Your task to perform on an android device: Empty the shopping cart on target. Search for "bose soundlink" on target, select the first entry, add it to the cart, then select checkout. Image 0: 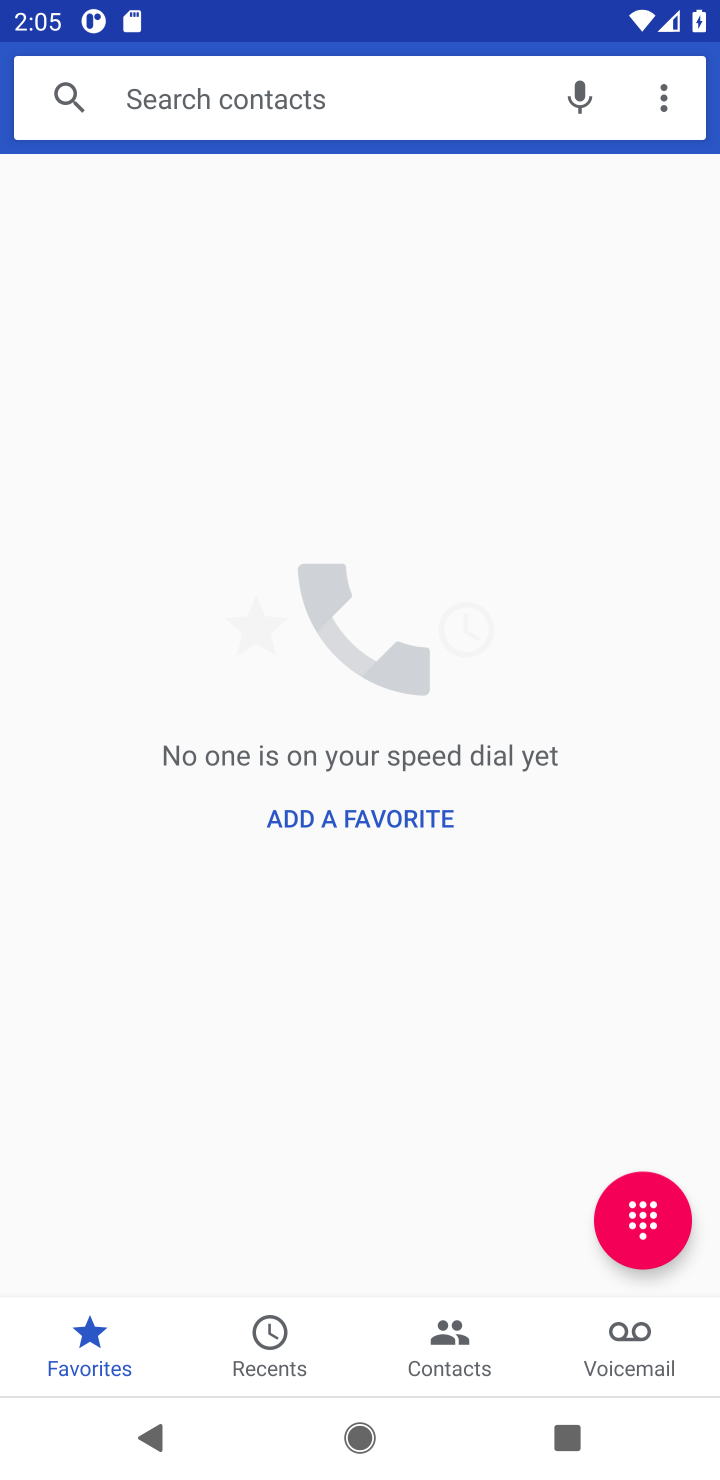
Step 0: press home button
Your task to perform on an android device: Empty the shopping cart on target. Search for "bose soundlink" on target, select the first entry, add it to the cart, then select checkout. Image 1: 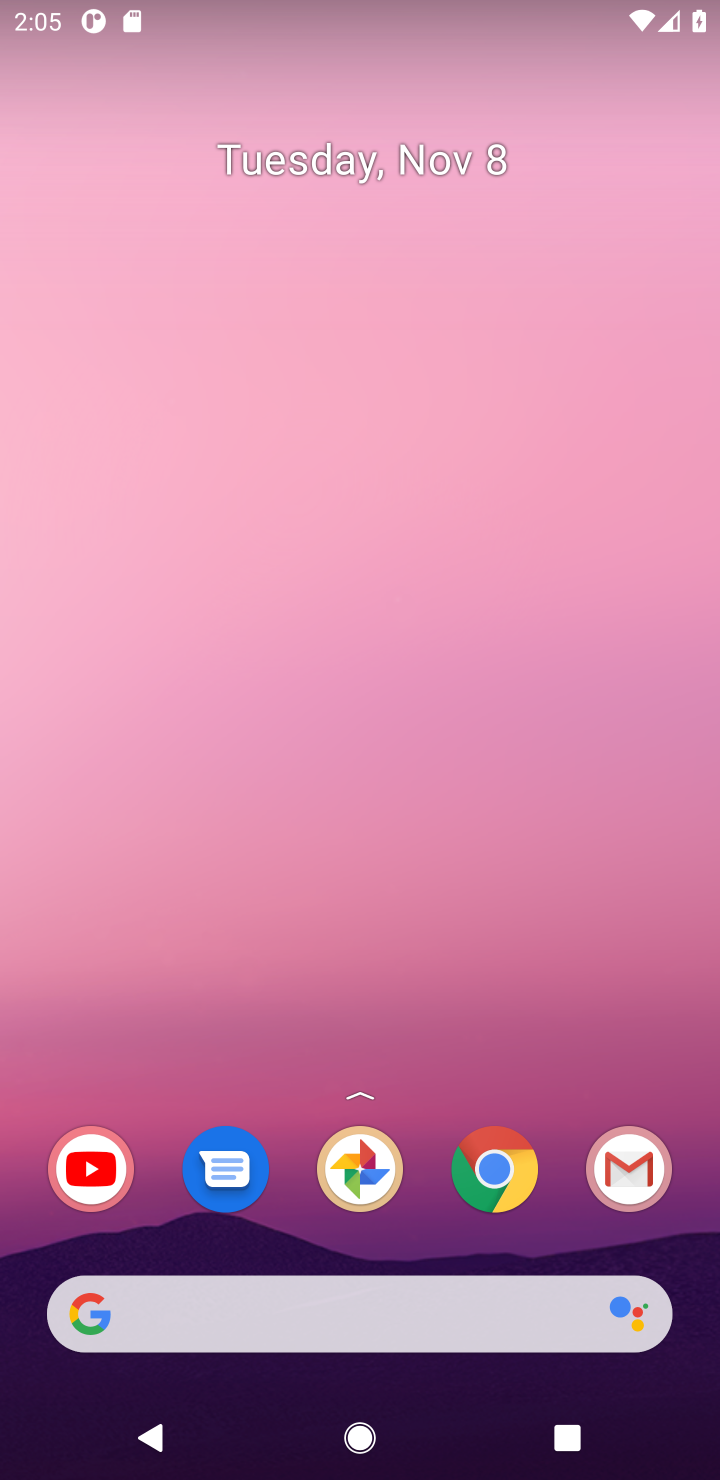
Step 1: click (497, 1164)
Your task to perform on an android device: Empty the shopping cart on target. Search for "bose soundlink" on target, select the first entry, add it to the cart, then select checkout. Image 2: 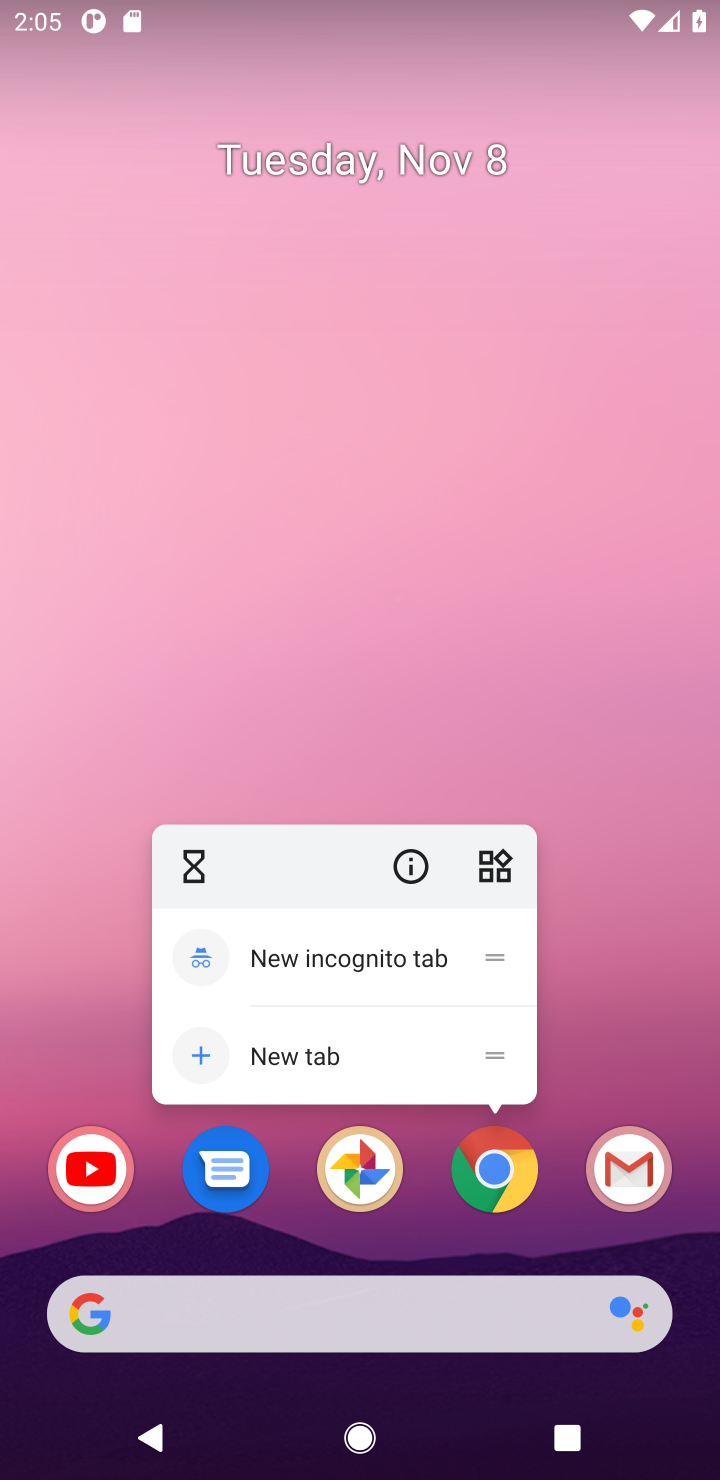
Step 2: click (493, 1207)
Your task to perform on an android device: Empty the shopping cart on target. Search for "bose soundlink" on target, select the first entry, add it to the cart, then select checkout. Image 3: 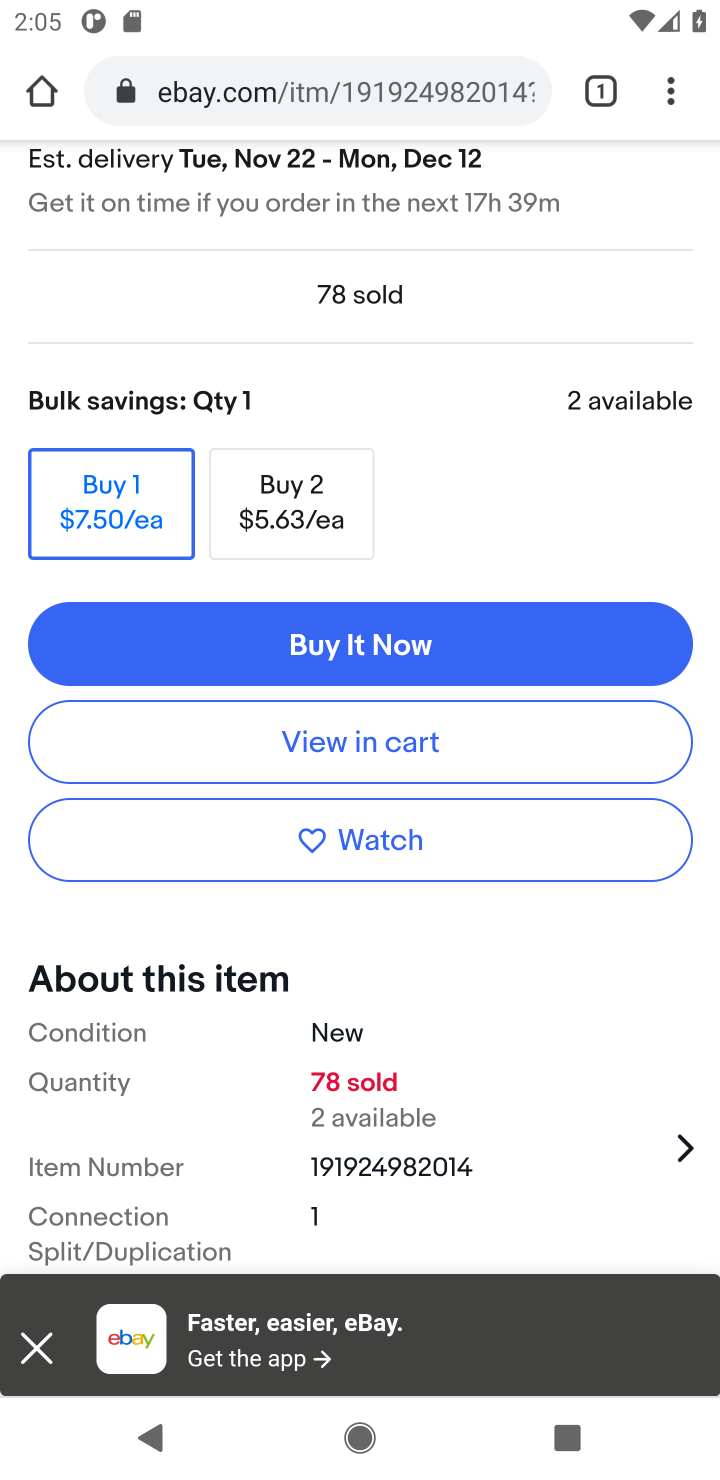
Step 3: click (391, 75)
Your task to perform on an android device: Empty the shopping cart on target. Search for "bose soundlink" on target, select the first entry, add it to the cart, then select checkout. Image 4: 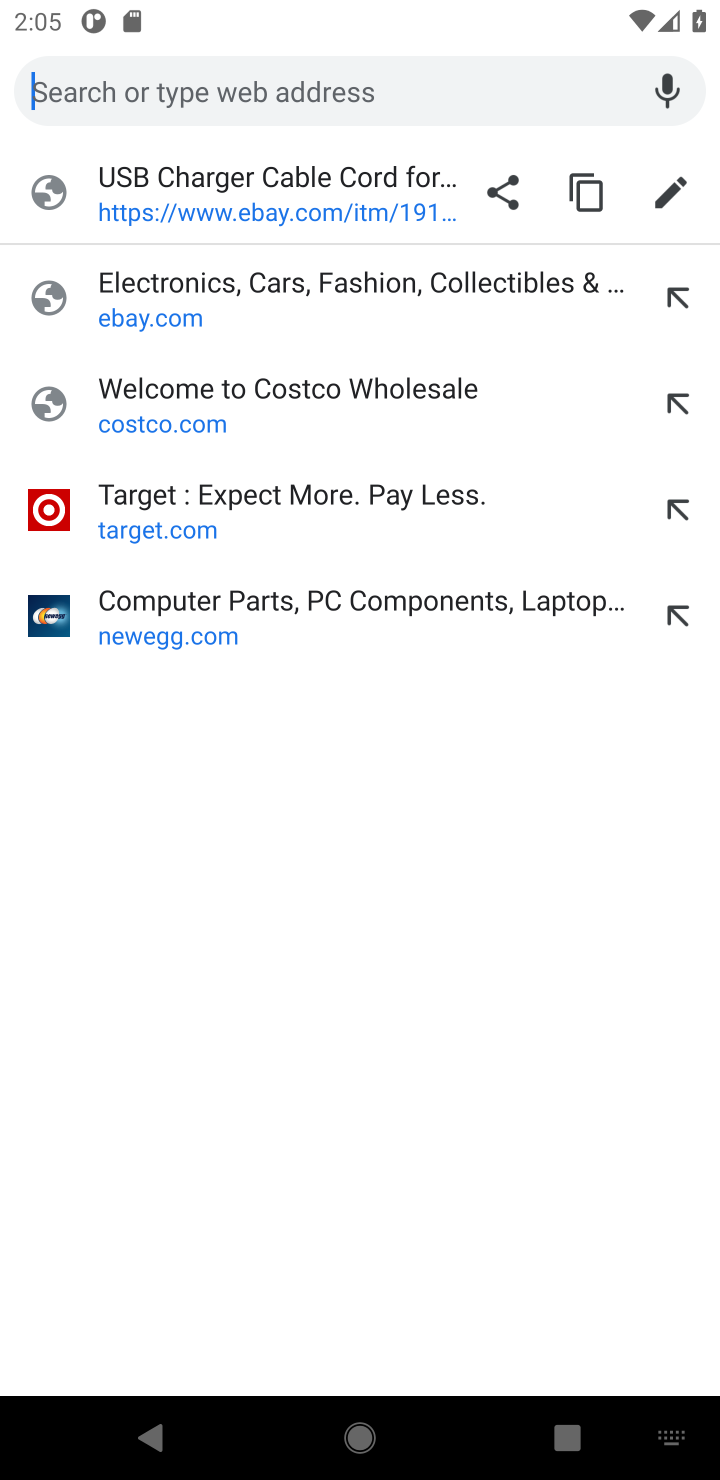
Step 4: type "target"
Your task to perform on an android device: Empty the shopping cart on target. Search for "bose soundlink" on target, select the first entry, add it to the cart, then select checkout. Image 5: 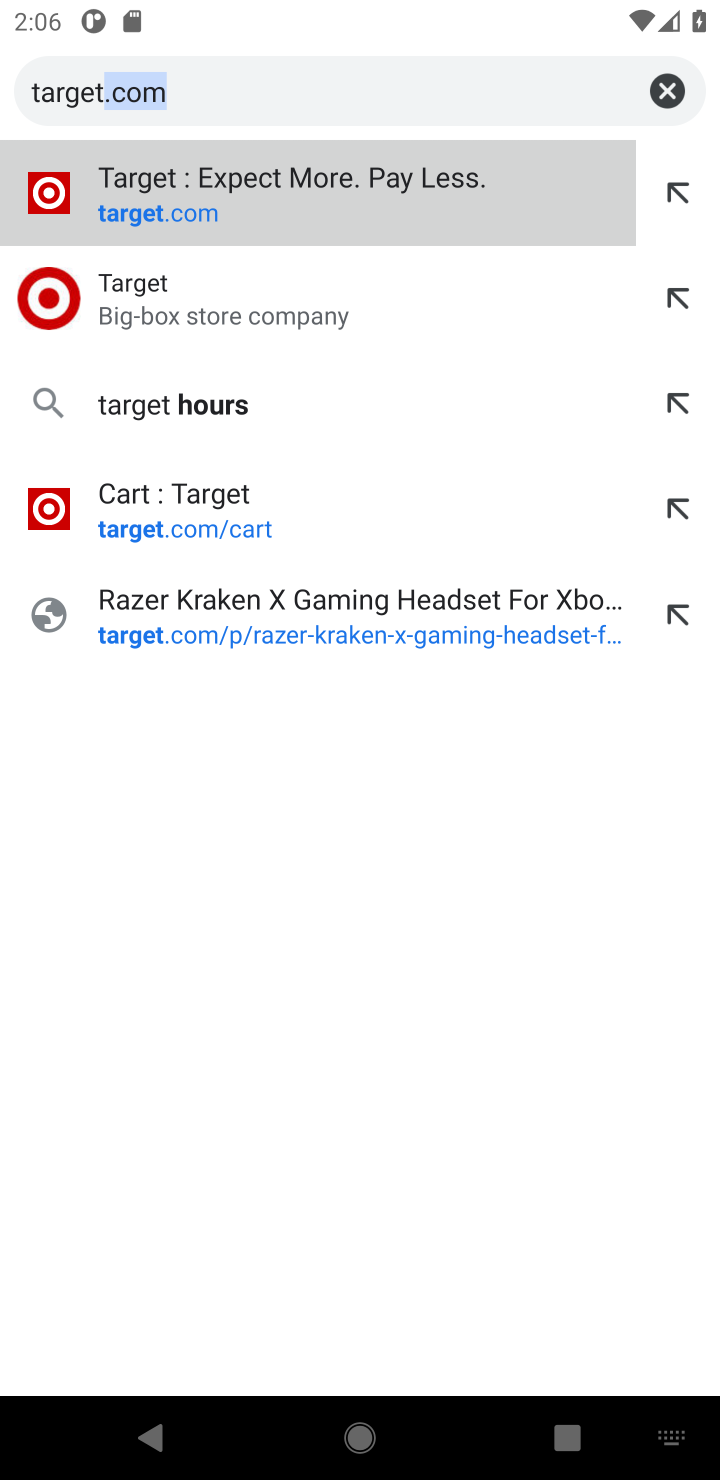
Step 5: click (311, 205)
Your task to perform on an android device: Empty the shopping cart on target. Search for "bose soundlink" on target, select the first entry, add it to the cart, then select checkout. Image 6: 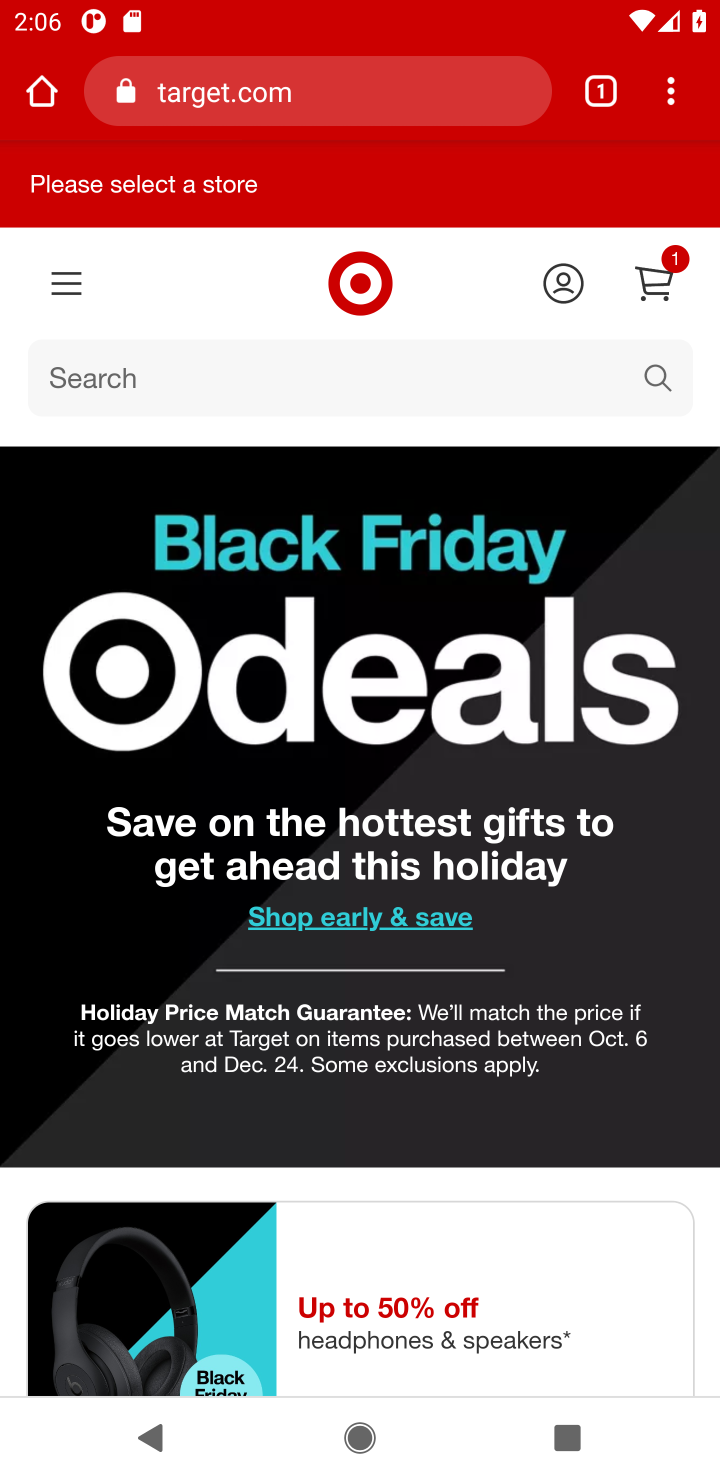
Step 6: click (656, 286)
Your task to perform on an android device: Empty the shopping cart on target. Search for "bose soundlink" on target, select the first entry, add it to the cart, then select checkout. Image 7: 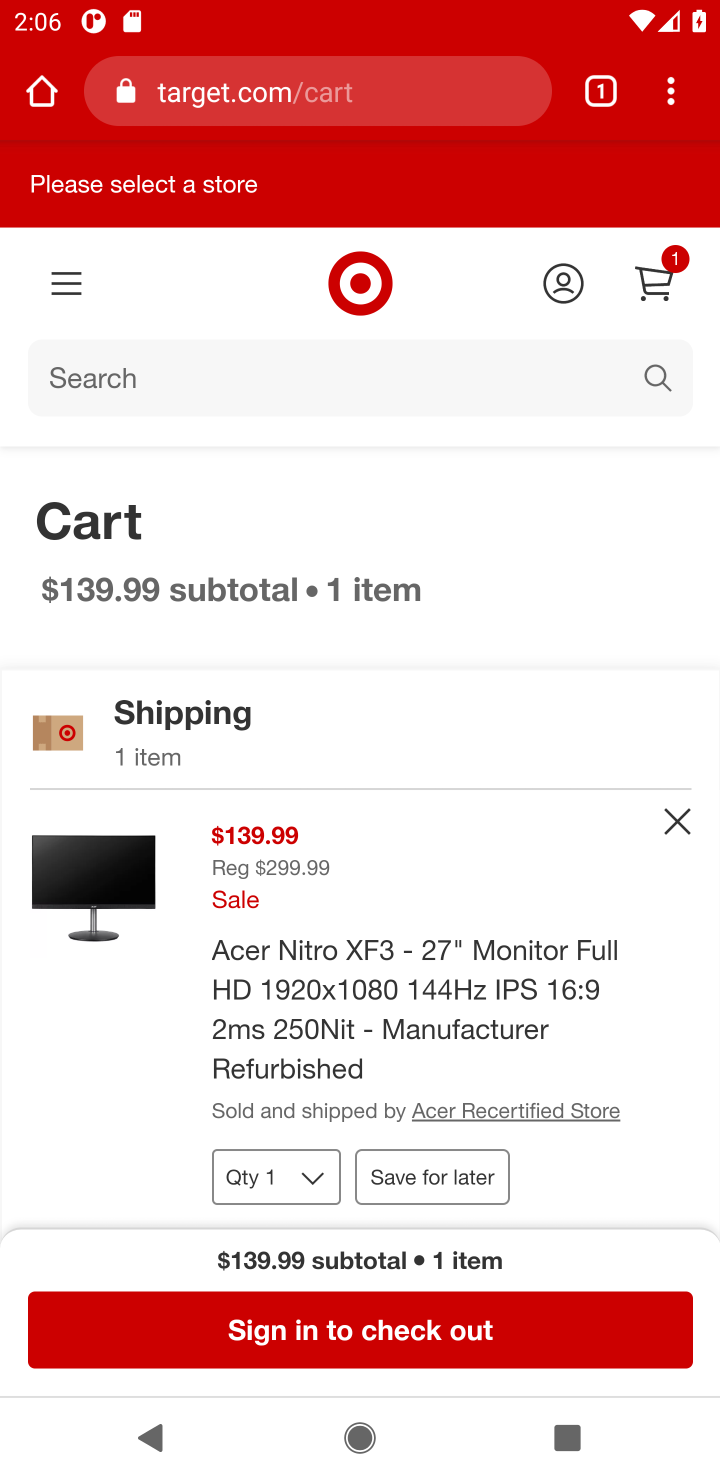
Step 7: drag from (563, 1186) to (478, 876)
Your task to perform on an android device: Empty the shopping cart on target. Search for "bose soundlink" on target, select the first entry, add it to the cart, then select checkout. Image 8: 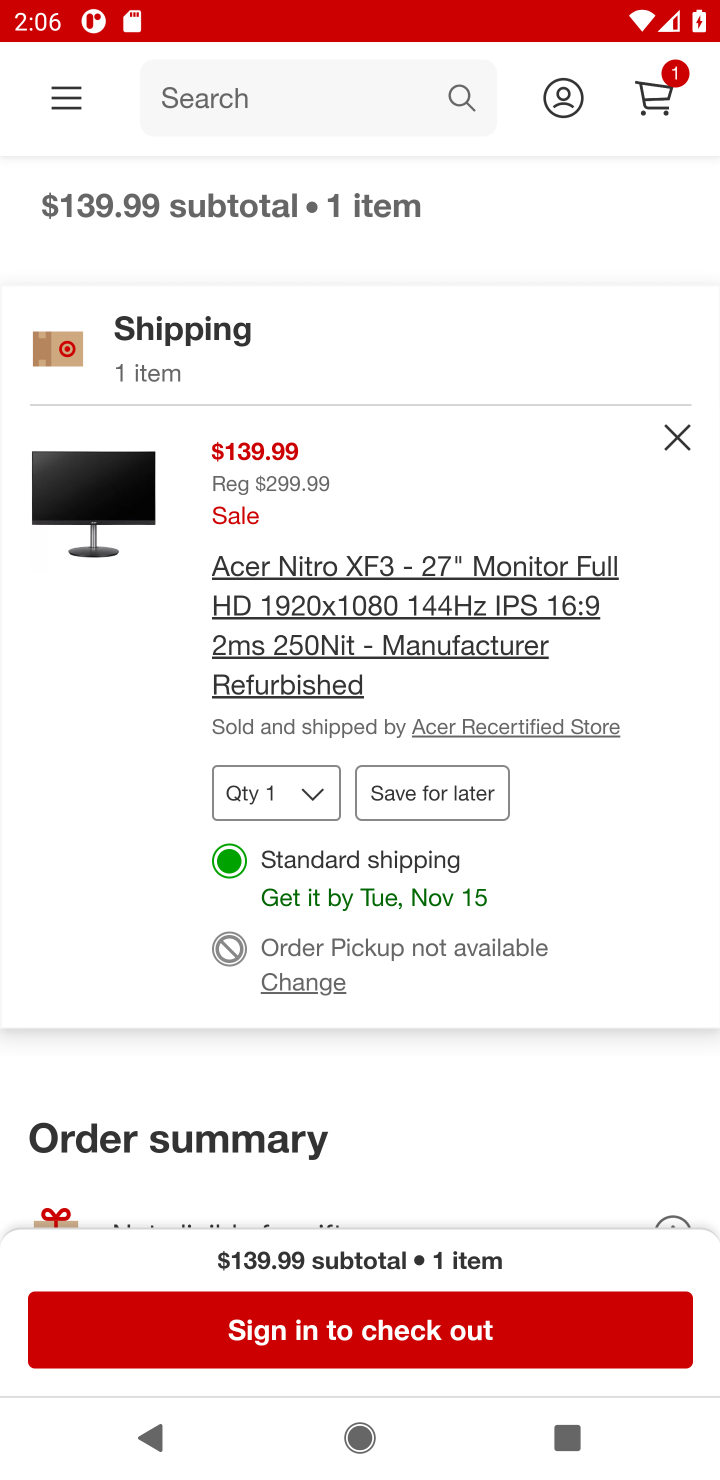
Step 8: click (673, 428)
Your task to perform on an android device: Empty the shopping cart on target. Search for "bose soundlink" on target, select the first entry, add it to the cart, then select checkout. Image 9: 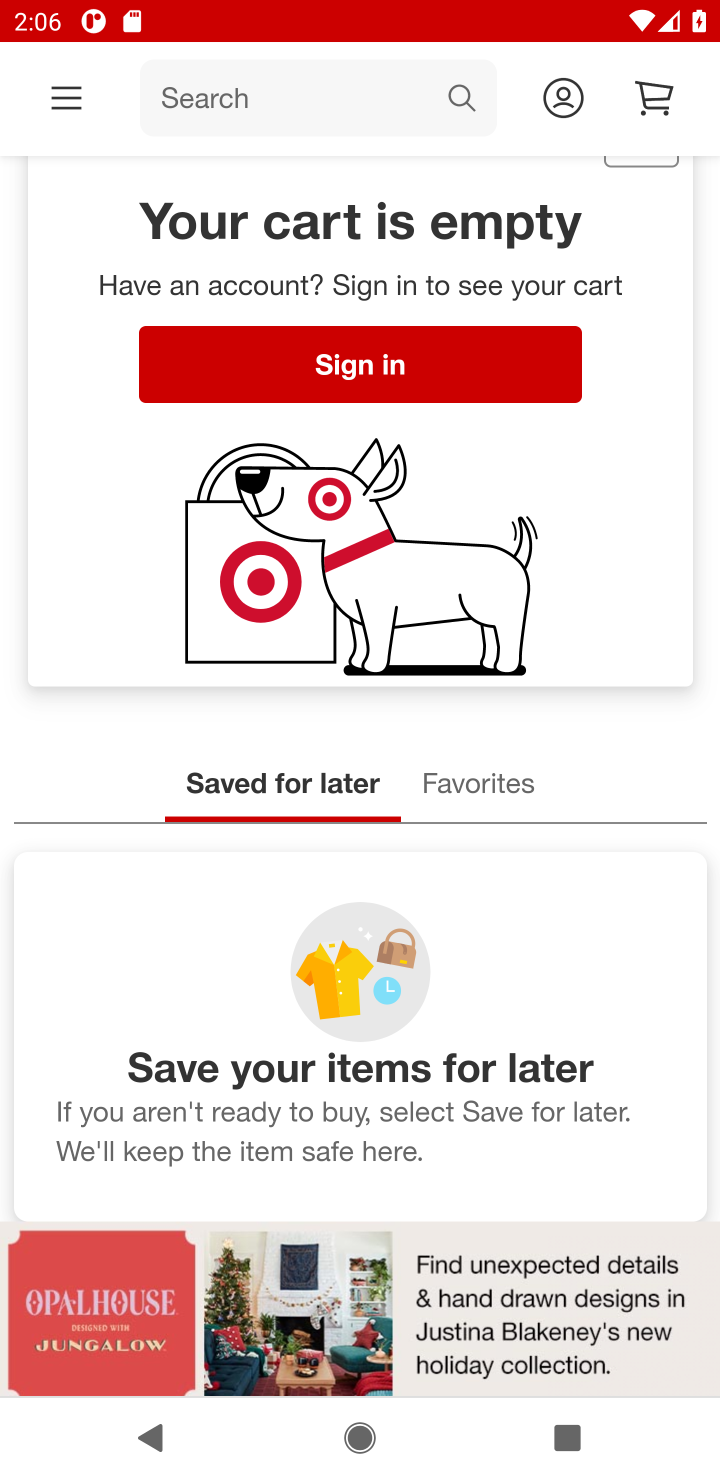
Step 9: drag from (320, 157) to (358, 406)
Your task to perform on an android device: Empty the shopping cart on target. Search for "bose soundlink" on target, select the first entry, add it to the cart, then select checkout. Image 10: 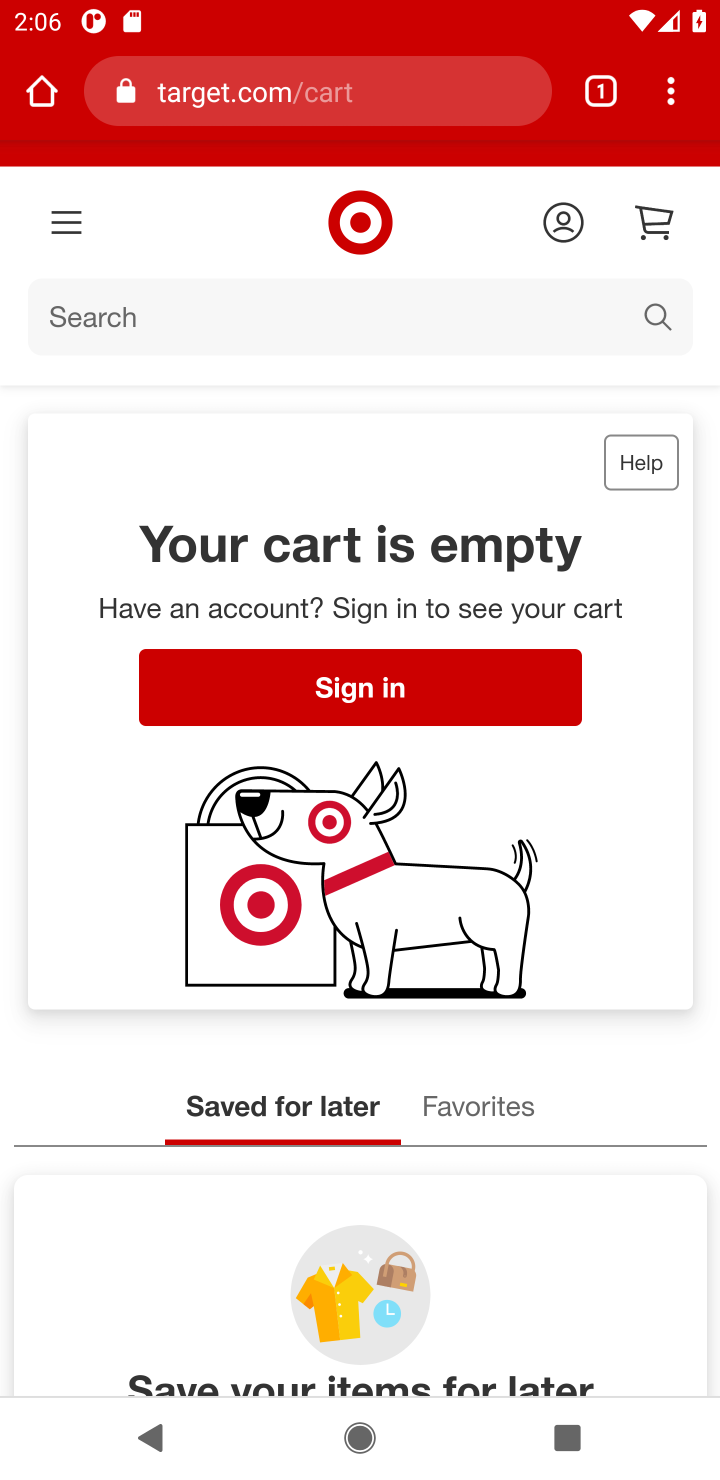
Step 10: click (305, 318)
Your task to perform on an android device: Empty the shopping cart on target. Search for "bose soundlink" on target, select the first entry, add it to the cart, then select checkout. Image 11: 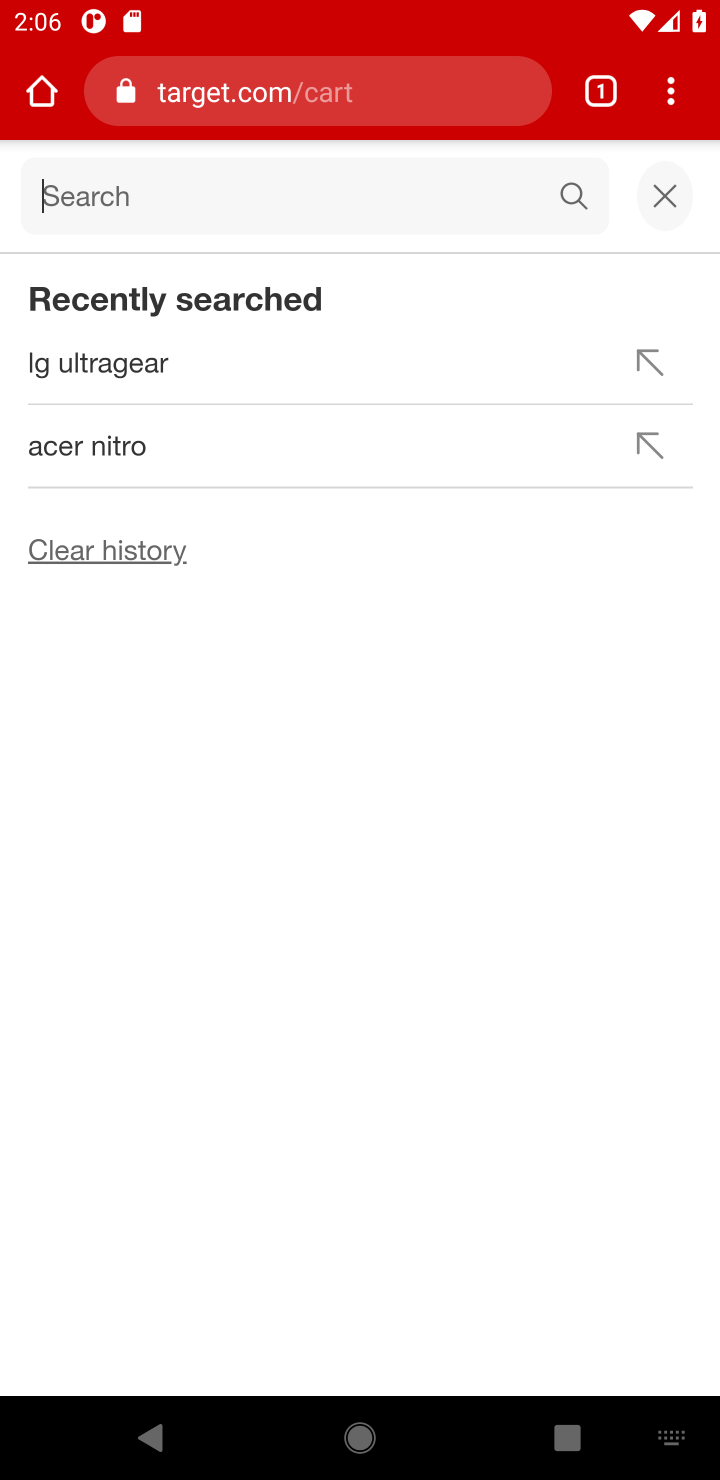
Step 11: type "bose soundlink"
Your task to perform on an android device: Empty the shopping cart on target. Search for "bose soundlink" on target, select the first entry, add it to the cart, then select checkout. Image 12: 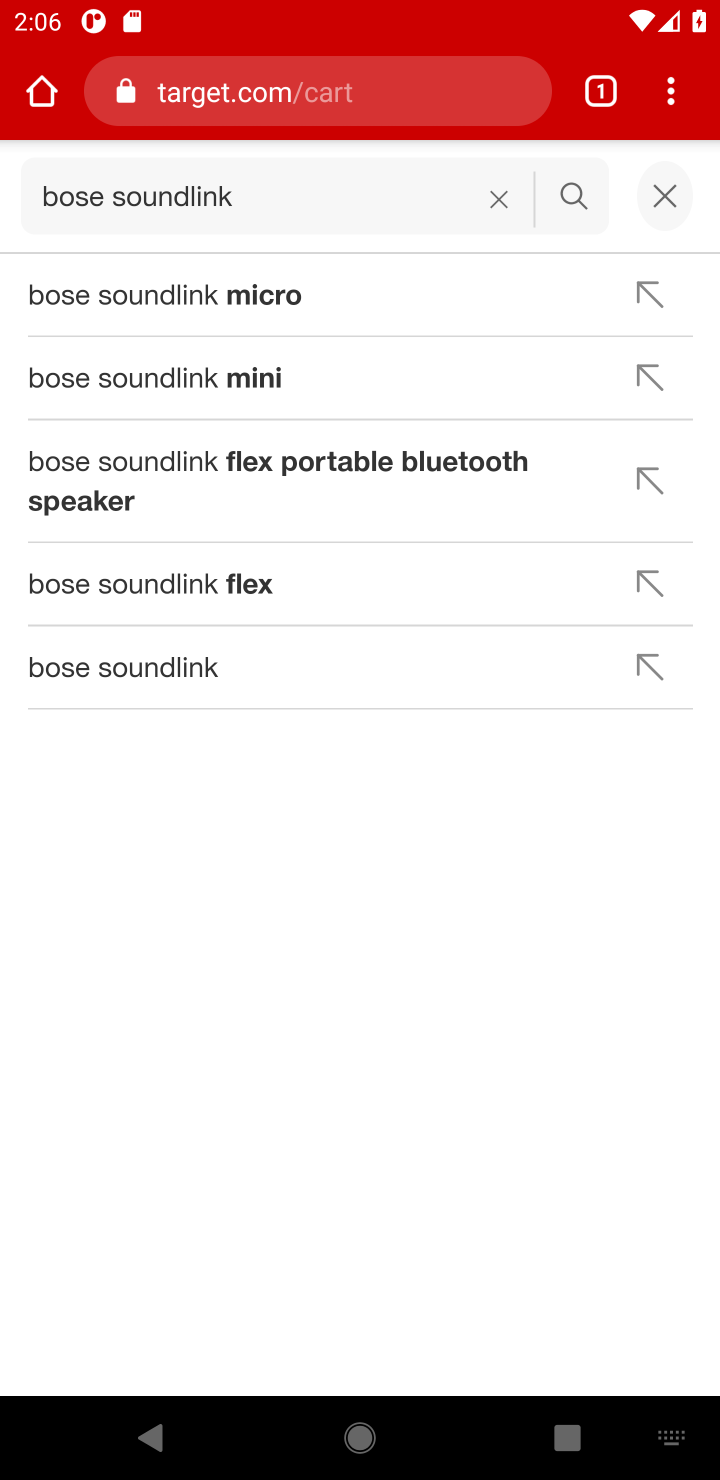
Step 12: press enter
Your task to perform on an android device: Empty the shopping cart on target. Search for "bose soundlink" on target, select the first entry, add it to the cart, then select checkout. Image 13: 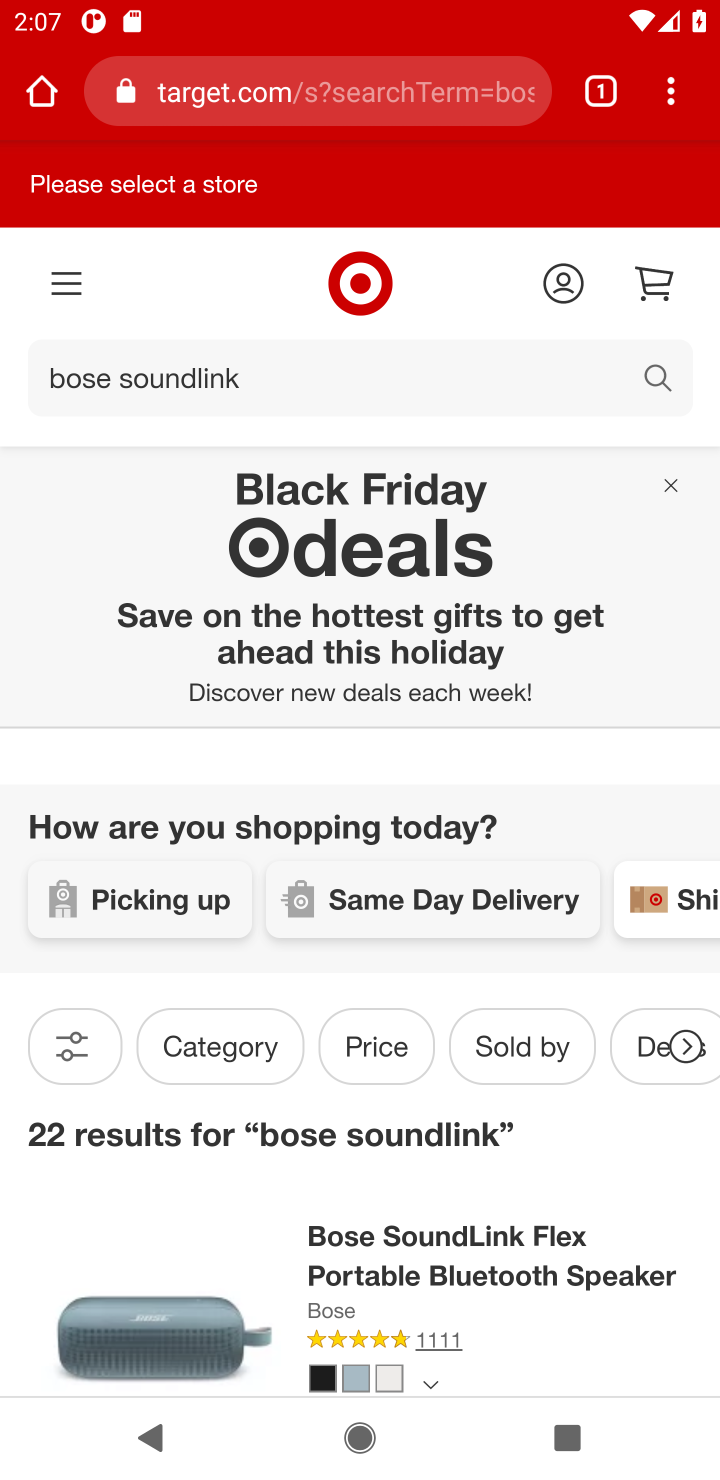
Step 13: drag from (421, 1291) to (288, 804)
Your task to perform on an android device: Empty the shopping cart on target. Search for "bose soundlink" on target, select the first entry, add it to the cart, then select checkout. Image 14: 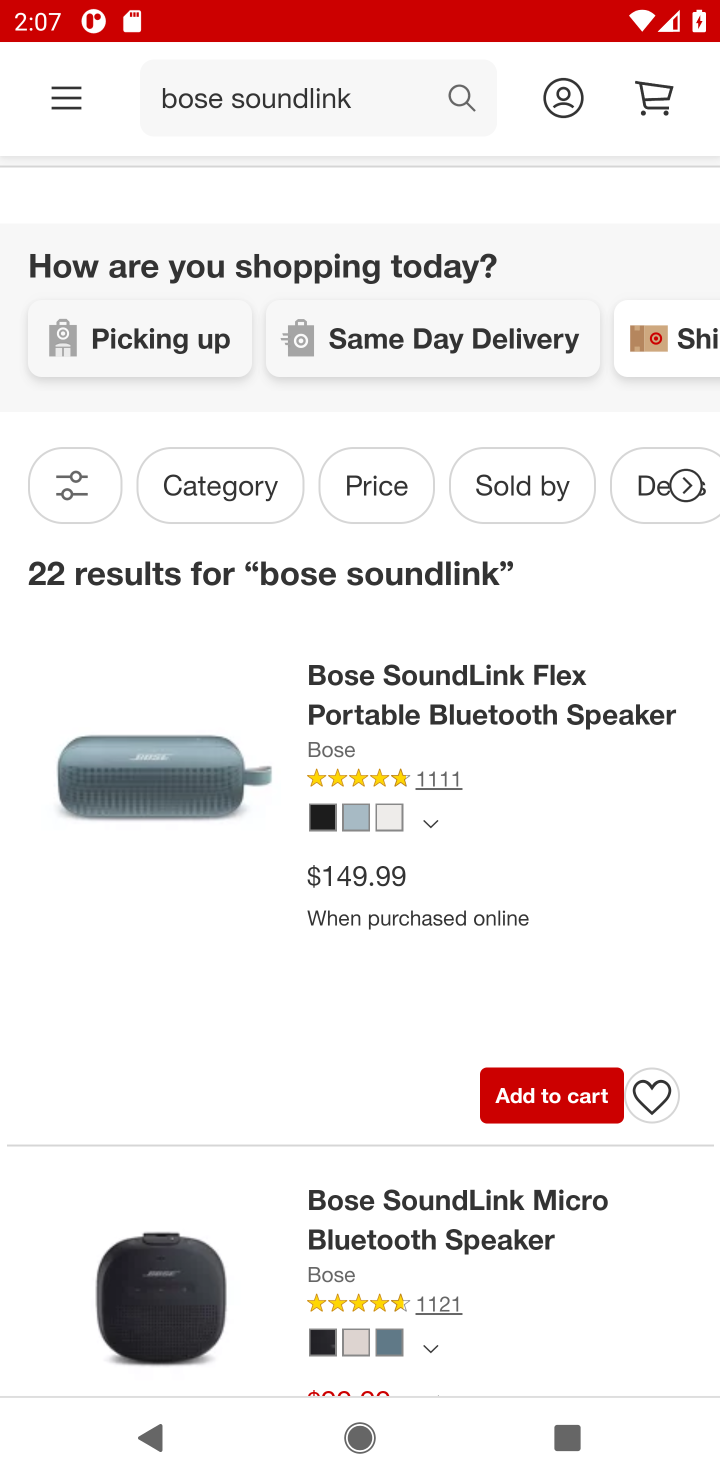
Step 14: click (525, 1091)
Your task to perform on an android device: Empty the shopping cart on target. Search for "bose soundlink" on target, select the first entry, add it to the cart, then select checkout. Image 15: 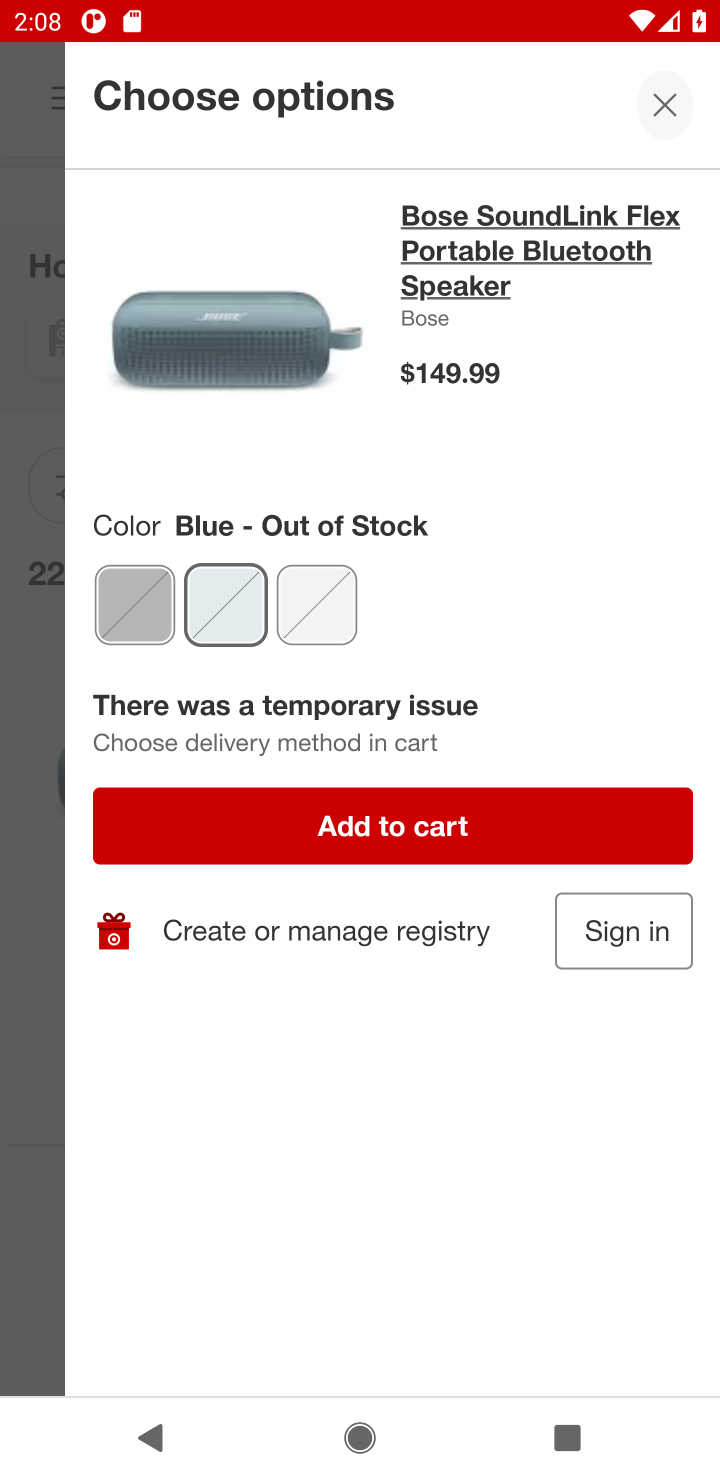
Step 15: click (429, 814)
Your task to perform on an android device: Empty the shopping cart on target. Search for "bose soundlink" on target, select the first entry, add it to the cart, then select checkout. Image 16: 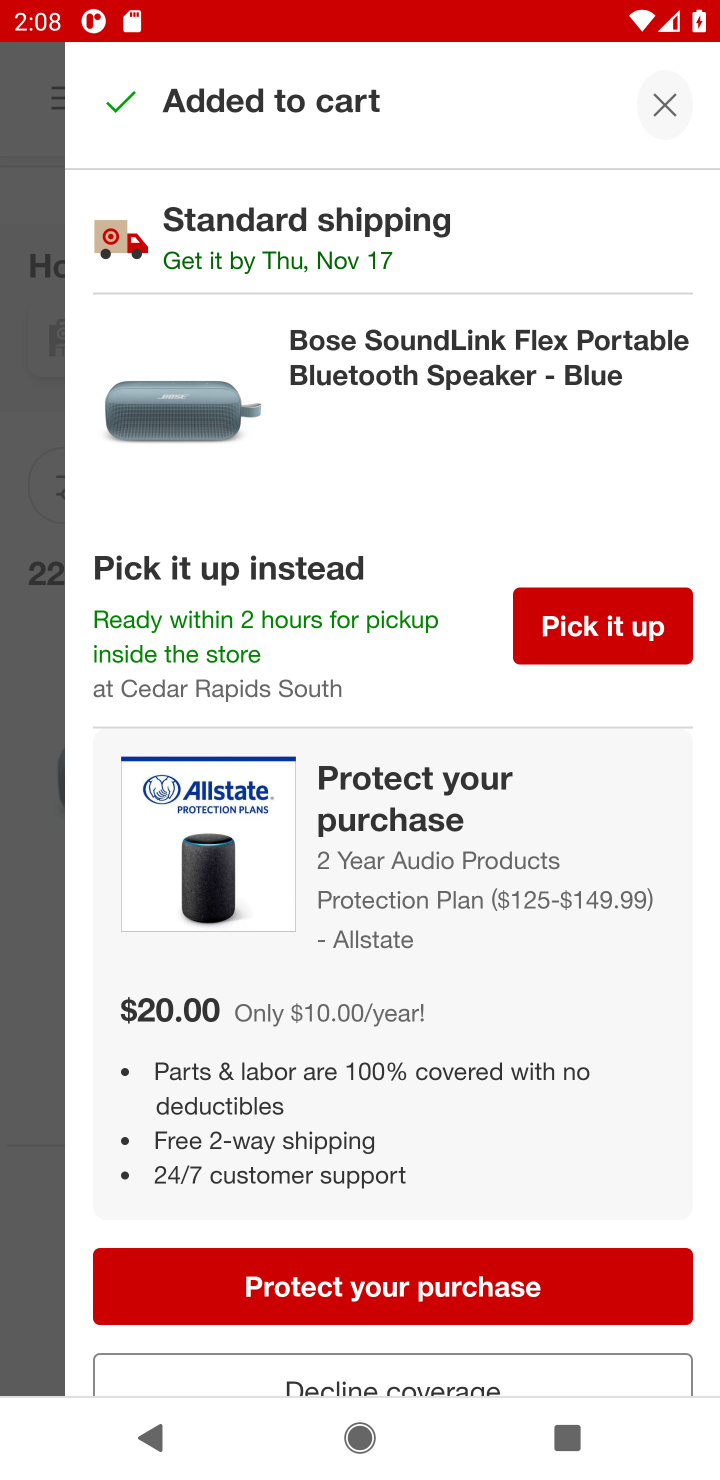
Step 16: click (562, 1385)
Your task to perform on an android device: Empty the shopping cart on target. Search for "bose soundlink" on target, select the first entry, add it to the cart, then select checkout. Image 17: 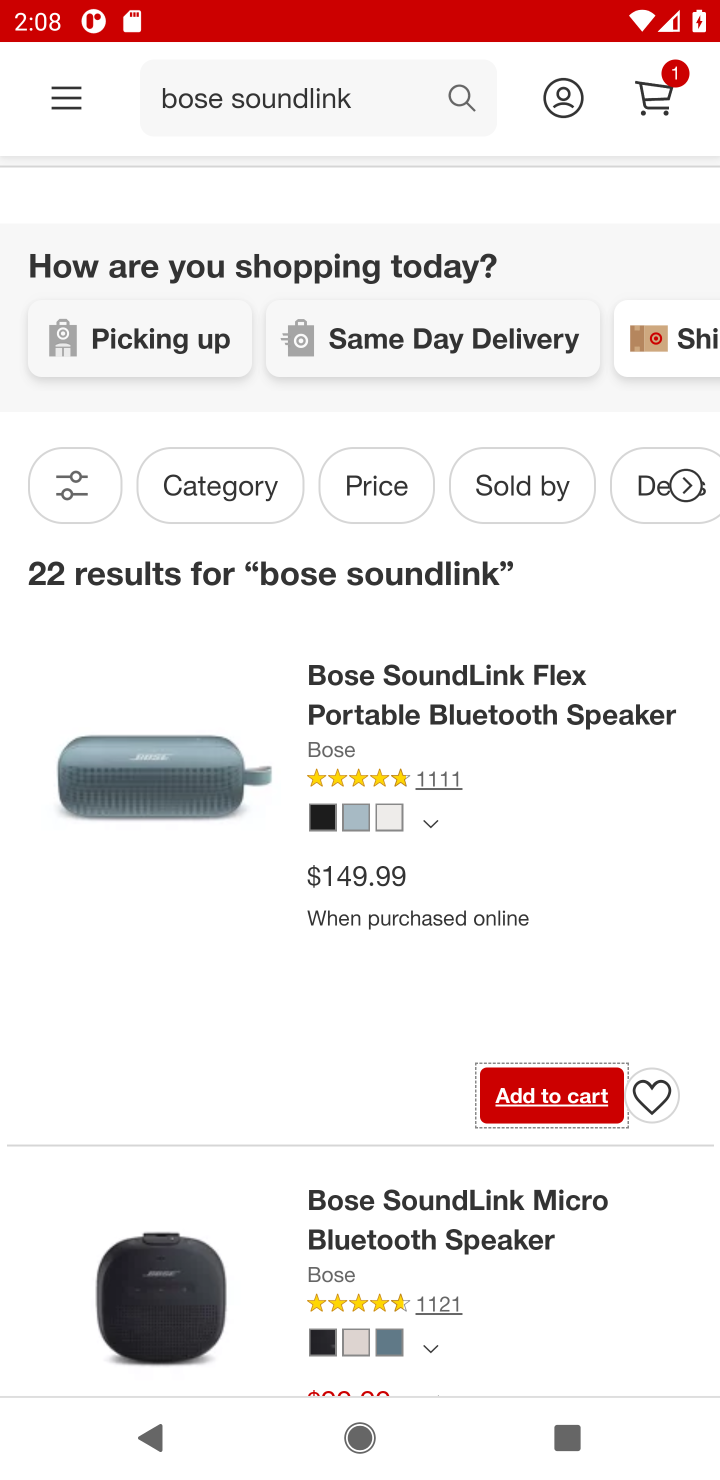
Step 17: click (660, 112)
Your task to perform on an android device: Empty the shopping cart on target. Search for "bose soundlink" on target, select the first entry, add it to the cart, then select checkout. Image 18: 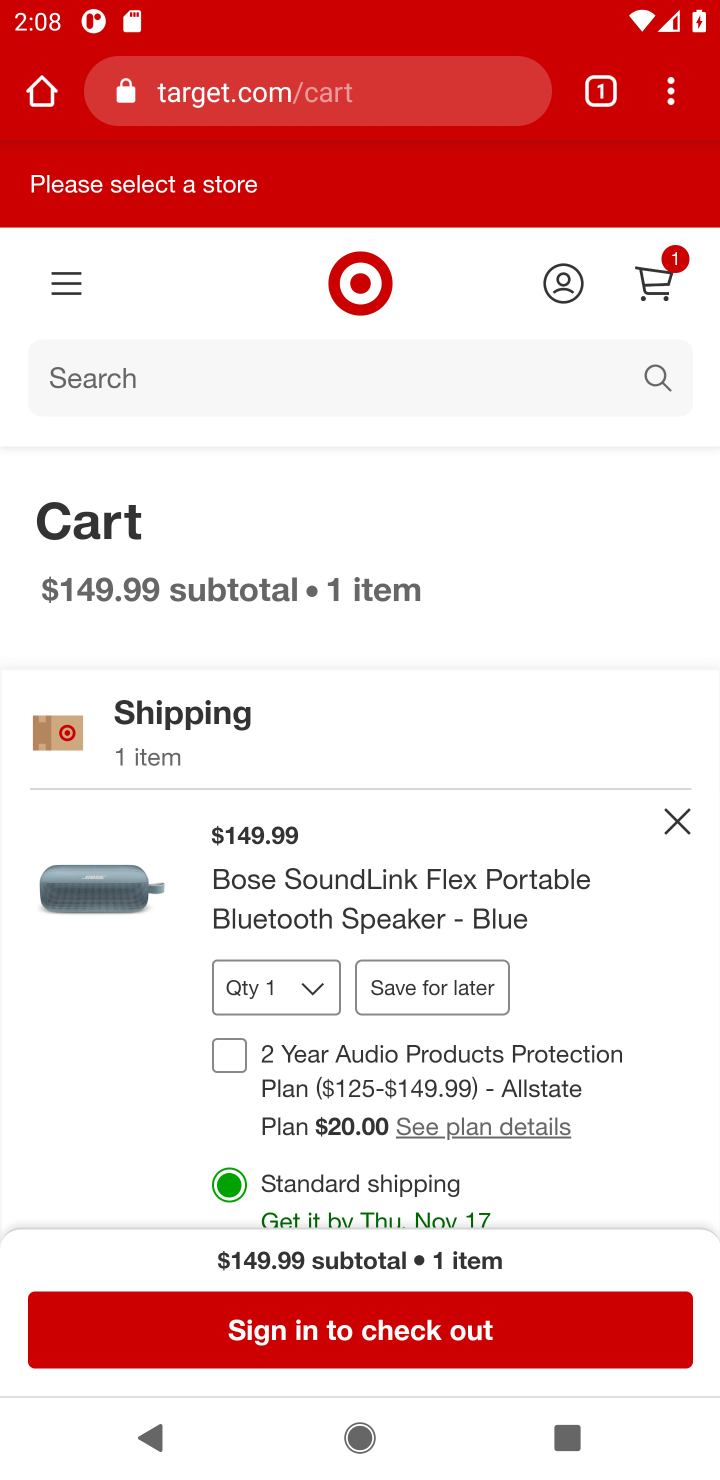
Step 18: click (329, 1335)
Your task to perform on an android device: Empty the shopping cart on target. Search for "bose soundlink" on target, select the first entry, add it to the cart, then select checkout. Image 19: 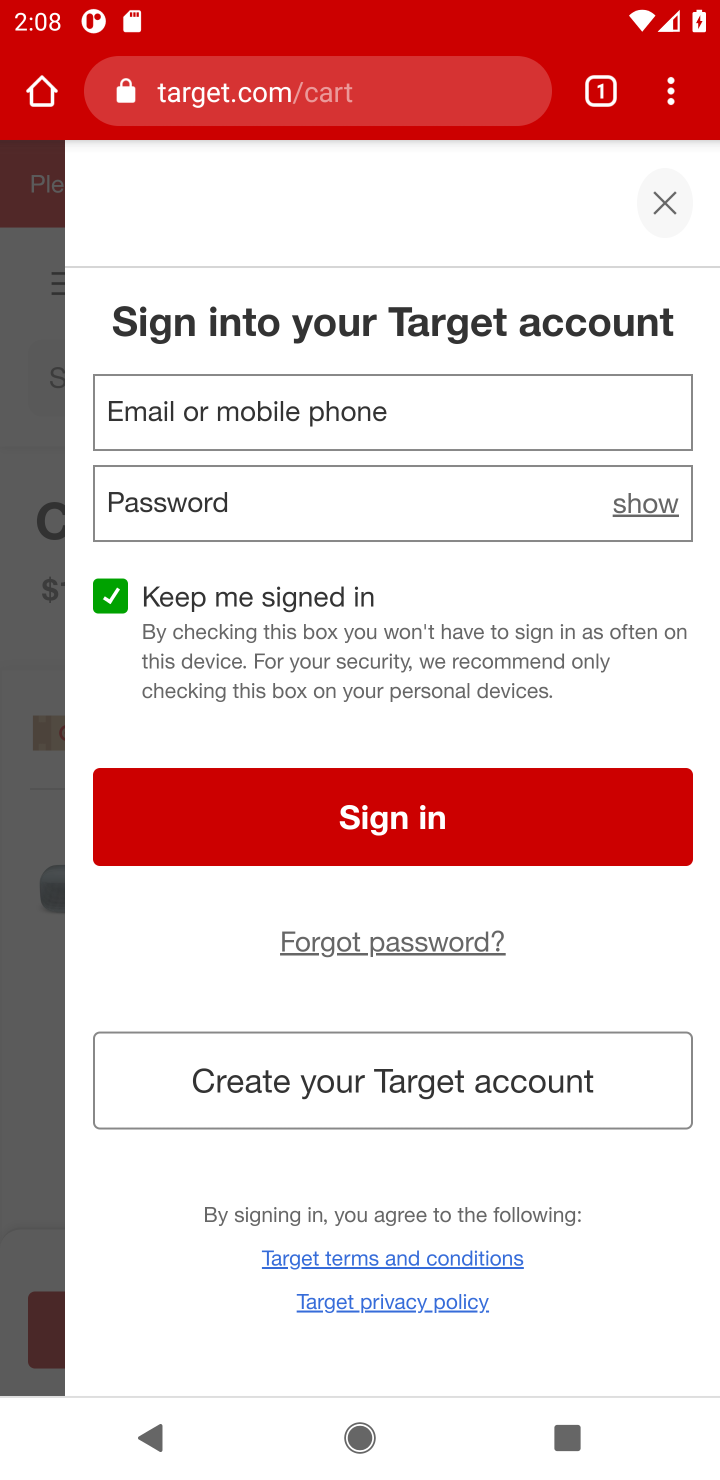
Step 19: task complete